Your task to perform on an android device: delete the emails in spam in the gmail app Image 0: 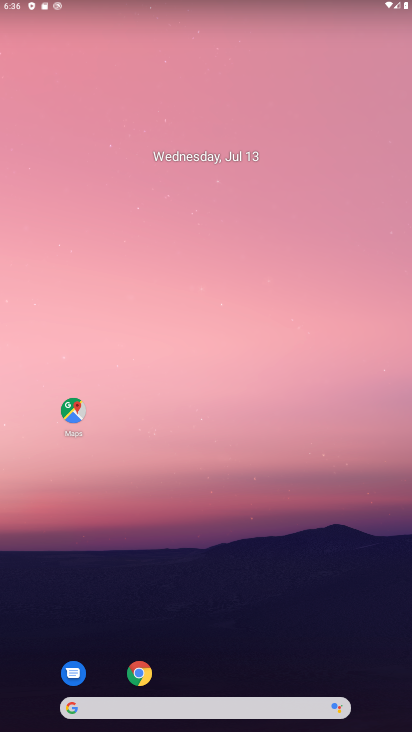
Step 0: drag from (312, 619) to (369, 58)
Your task to perform on an android device: delete the emails in spam in the gmail app Image 1: 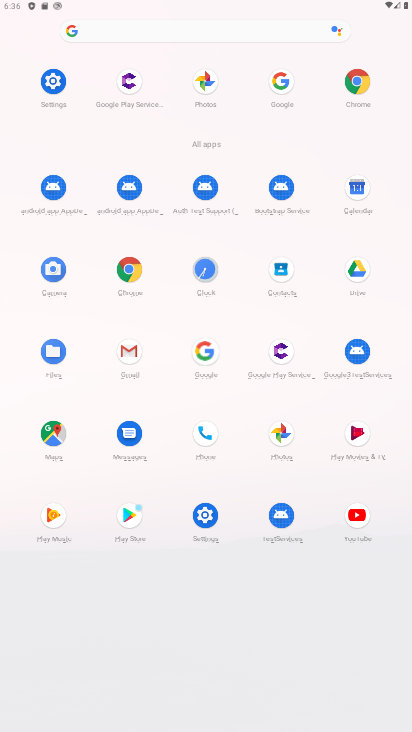
Step 1: click (139, 352)
Your task to perform on an android device: delete the emails in spam in the gmail app Image 2: 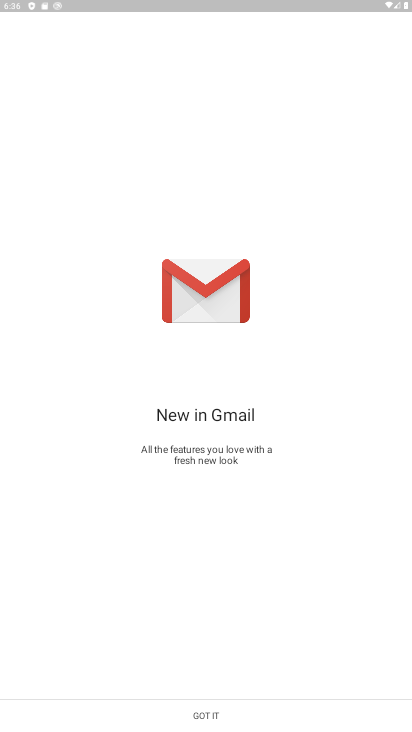
Step 2: click (211, 713)
Your task to perform on an android device: delete the emails in spam in the gmail app Image 3: 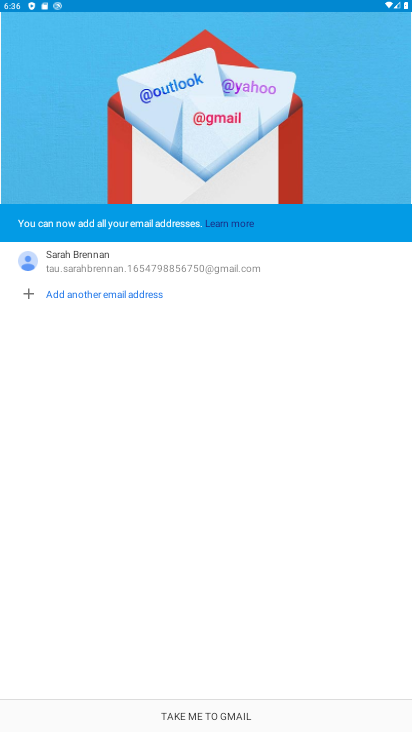
Step 3: click (211, 712)
Your task to perform on an android device: delete the emails in spam in the gmail app Image 4: 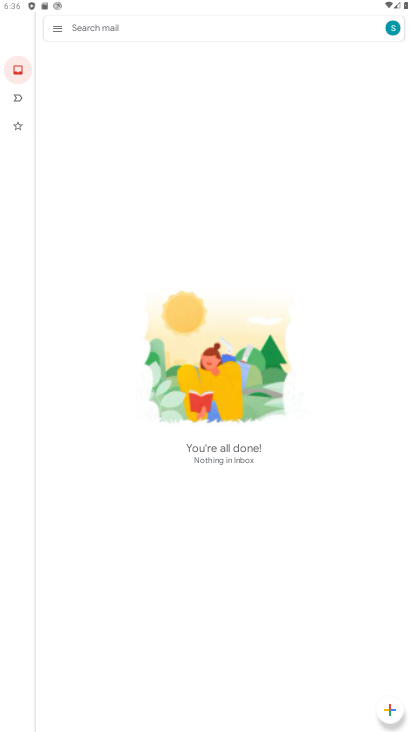
Step 4: click (61, 18)
Your task to perform on an android device: delete the emails in spam in the gmail app Image 5: 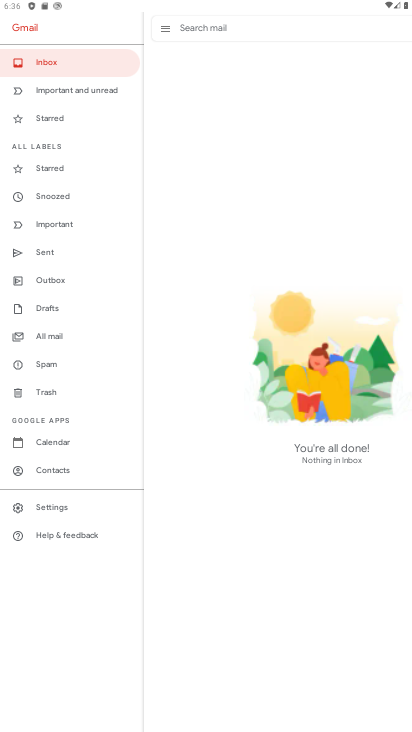
Step 5: click (47, 358)
Your task to perform on an android device: delete the emails in spam in the gmail app Image 6: 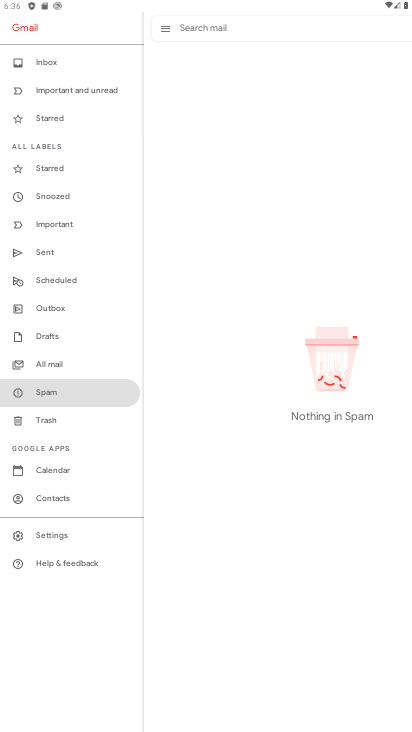
Step 6: task complete